Your task to perform on an android device: open sync settings in chrome Image 0: 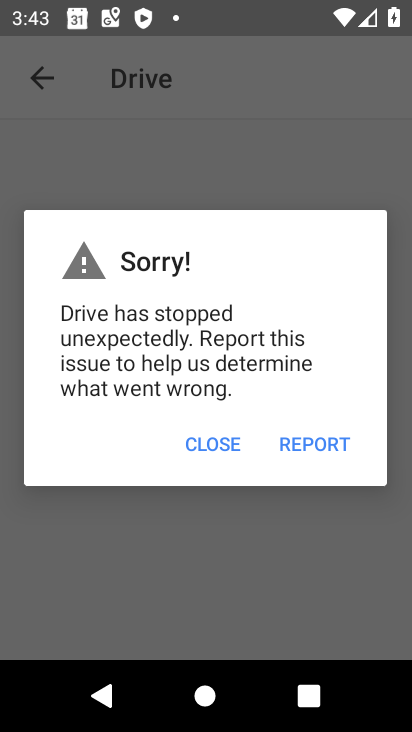
Step 0: press home button
Your task to perform on an android device: open sync settings in chrome Image 1: 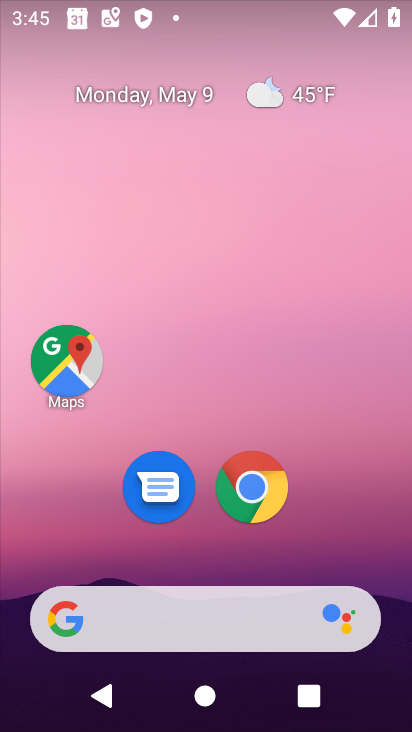
Step 1: click (252, 488)
Your task to perform on an android device: open sync settings in chrome Image 2: 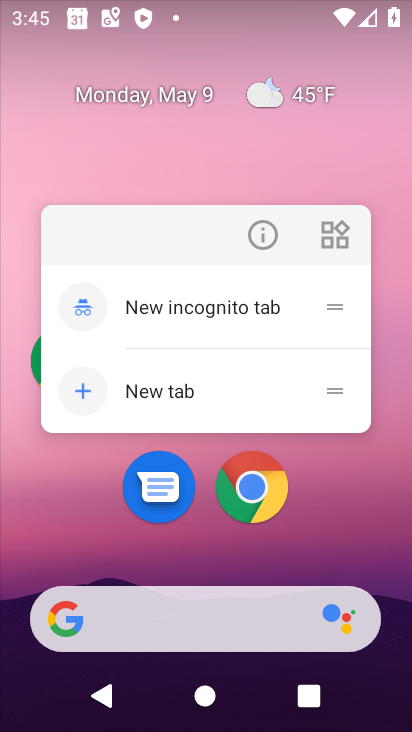
Step 2: click (265, 483)
Your task to perform on an android device: open sync settings in chrome Image 3: 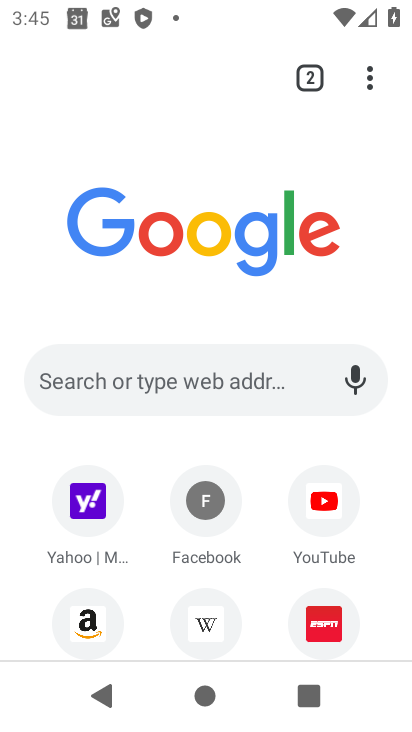
Step 3: click (375, 78)
Your task to perform on an android device: open sync settings in chrome Image 4: 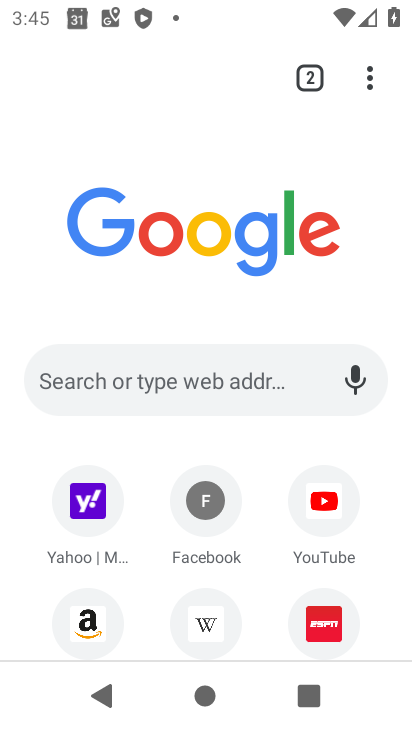
Step 4: click (367, 76)
Your task to perform on an android device: open sync settings in chrome Image 5: 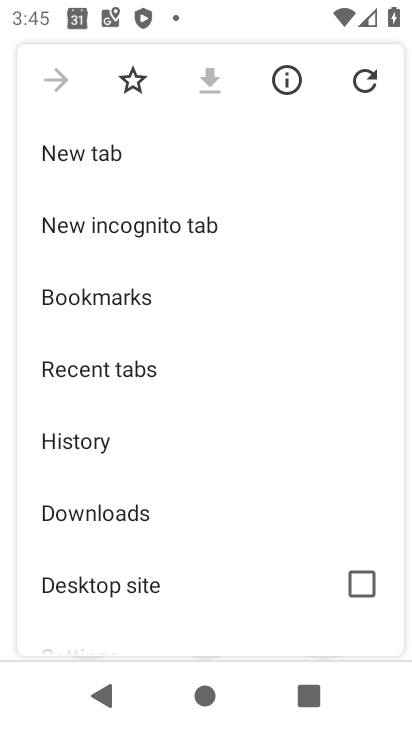
Step 5: drag from (151, 548) to (145, 68)
Your task to perform on an android device: open sync settings in chrome Image 6: 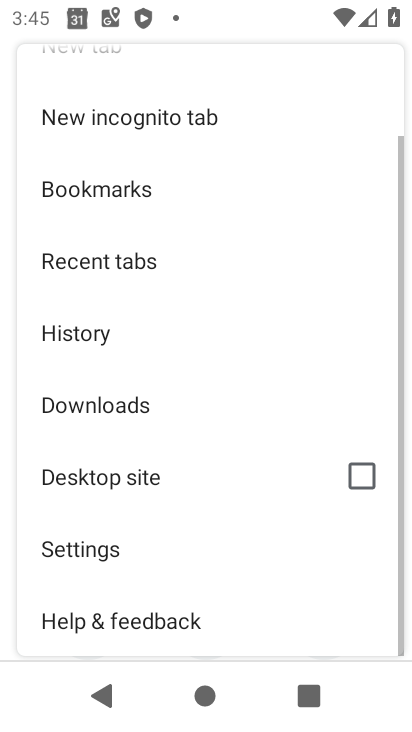
Step 6: click (87, 548)
Your task to perform on an android device: open sync settings in chrome Image 7: 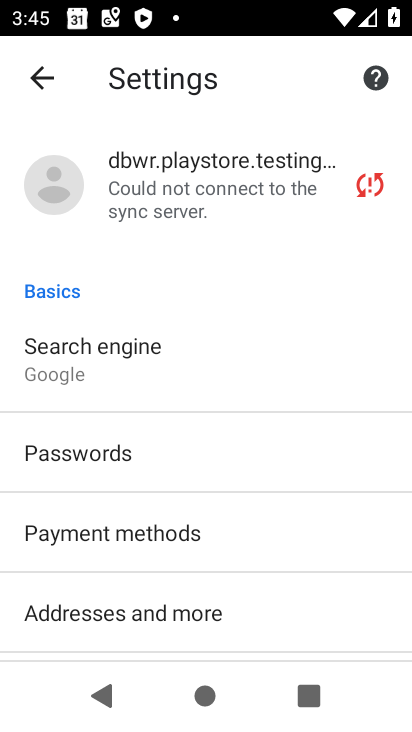
Step 7: click (178, 197)
Your task to perform on an android device: open sync settings in chrome Image 8: 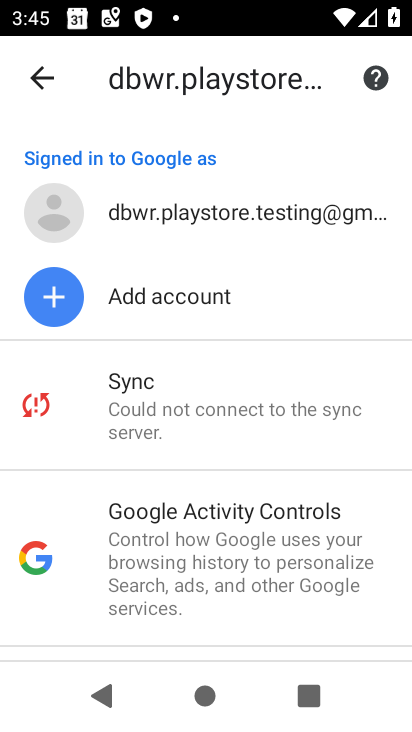
Step 8: click (172, 406)
Your task to perform on an android device: open sync settings in chrome Image 9: 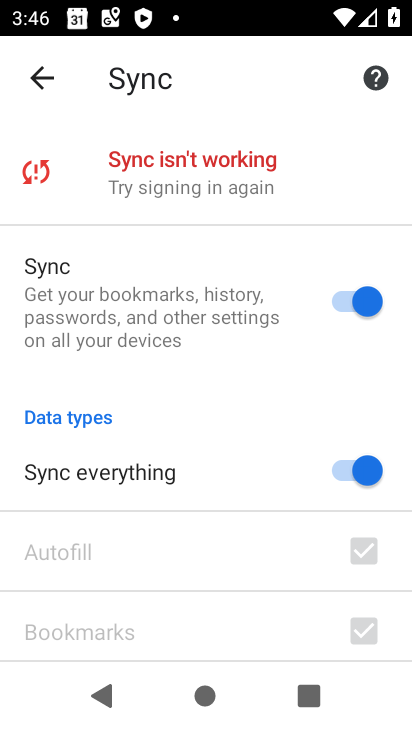
Step 9: task complete